Your task to perform on an android device: Open eBay Image 0: 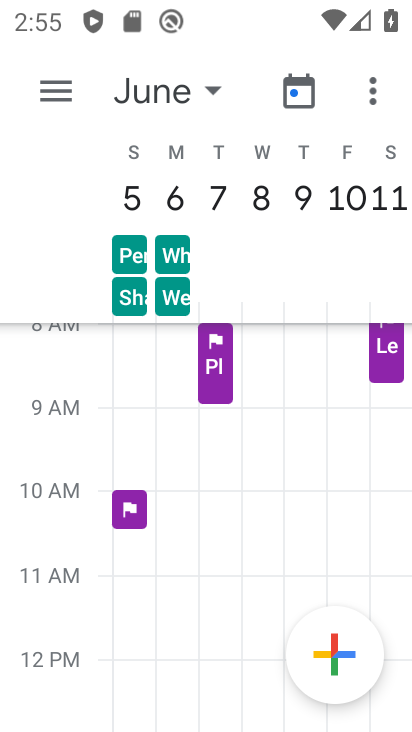
Step 0: press back button
Your task to perform on an android device: Open eBay Image 1: 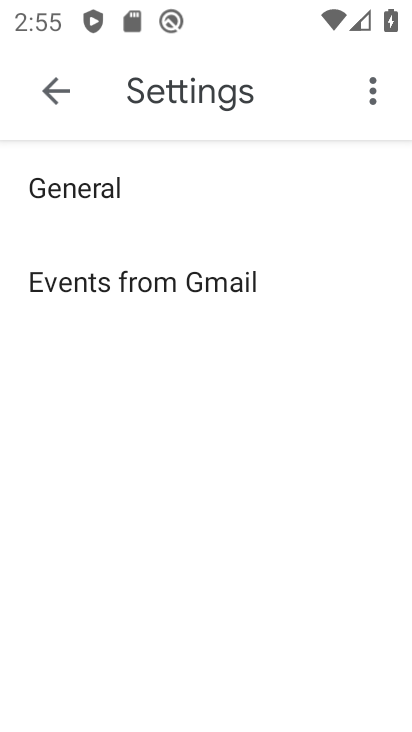
Step 1: press home button
Your task to perform on an android device: Open eBay Image 2: 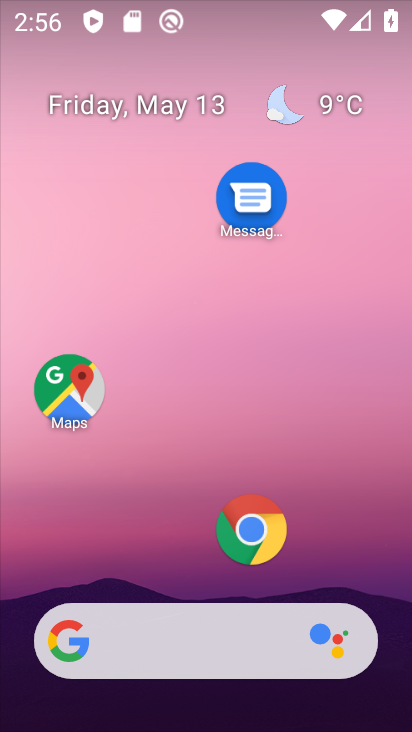
Step 2: click (234, 540)
Your task to perform on an android device: Open eBay Image 3: 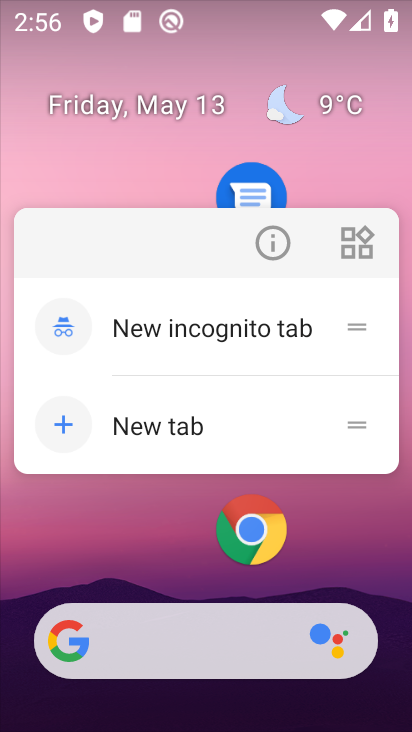
Step 3: click (231, 538)
Your task to perform on an android device: Open eBay Image 4: 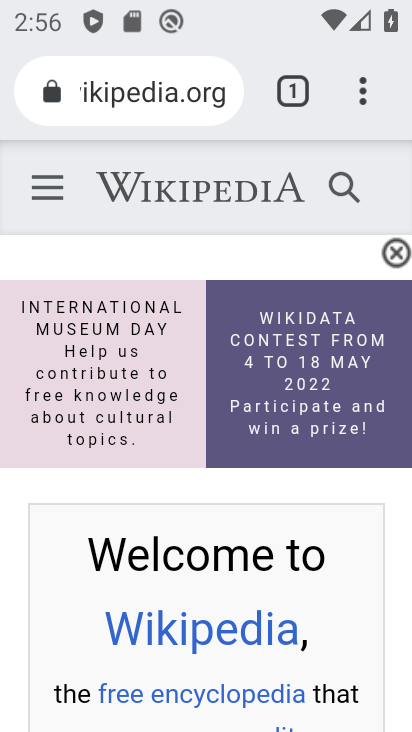
Step 4: drag from (357, 91) to (345, 150)
Your task to perform on an android device: Open eBay Image 5: 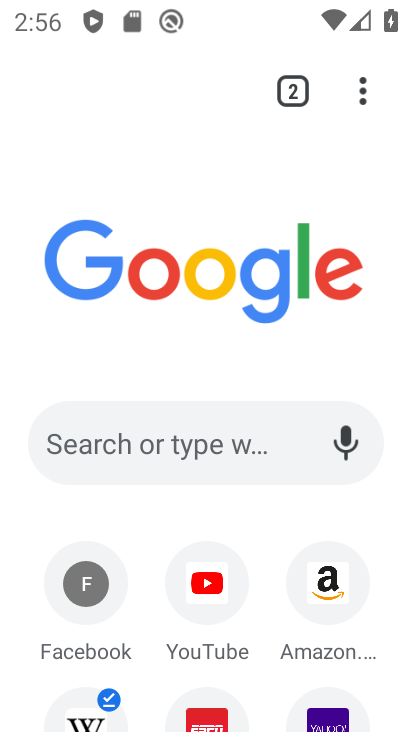
Step 5: click (149, 431)
Your task to perform on an android device: Open eBay Image 6: 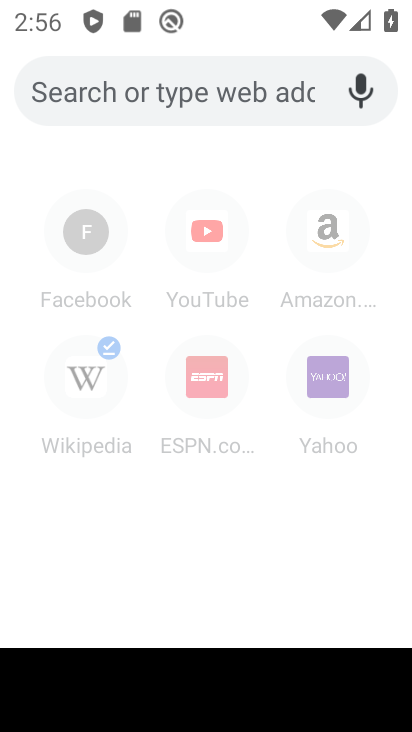
Step 6: type "eBay"
Your task to perform on an android device: Open eBay Image 7: 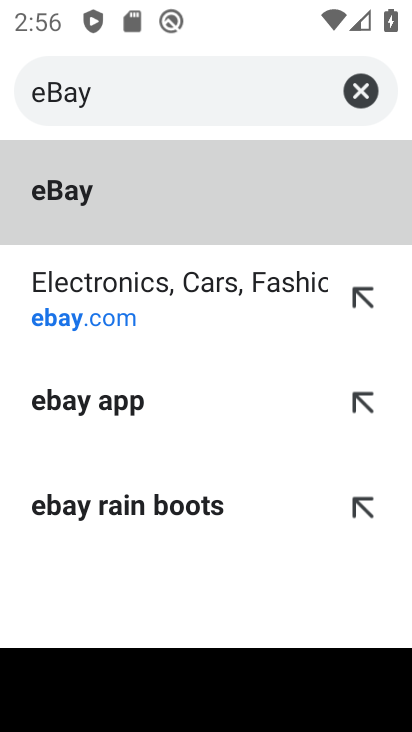
Step 7: click (199, 300)
Your task to perform on an android device: Open eBay Image 8: 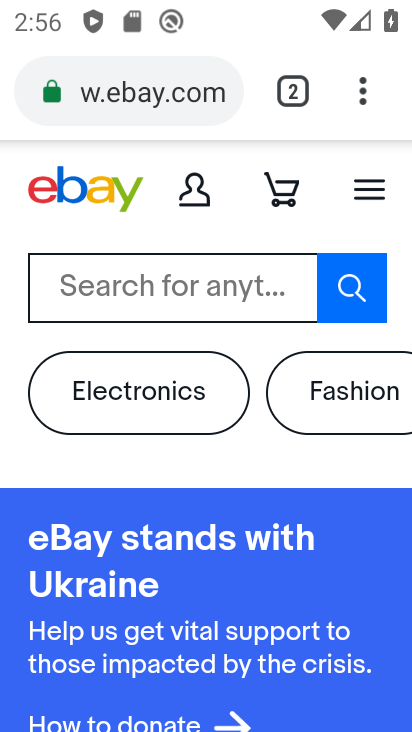
Step 8: drag from (143, 613) to (310, 232)
Your task to perform on an android device: Open eBay Image 9: 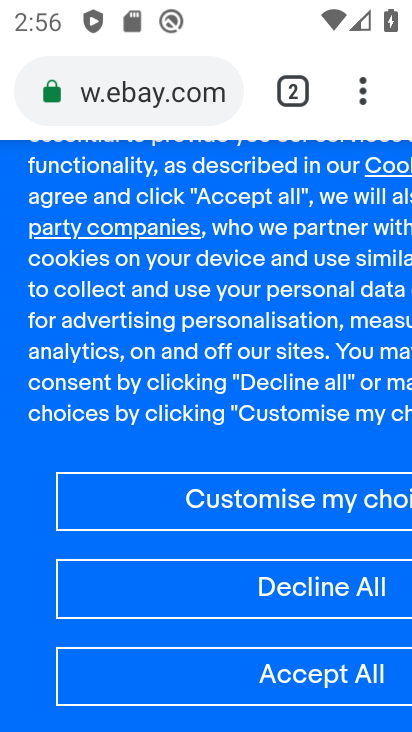
Step 9: click (290, 689)
Your task to perform on an android device: Open eBay Image 10: 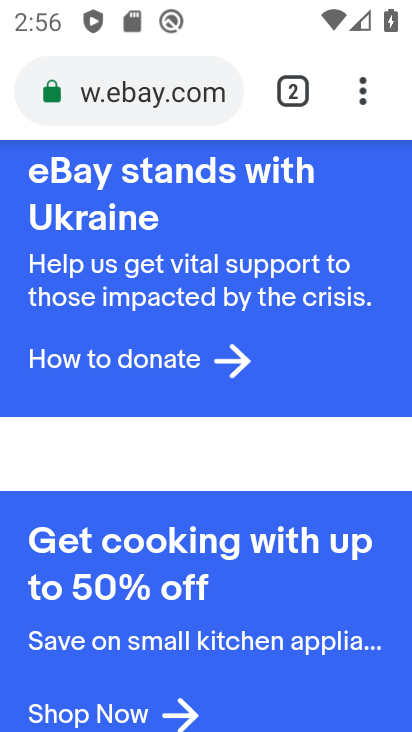
Step 10: task complete